Your task to perform on an android device: Open Maps and search for coffee Image 0: 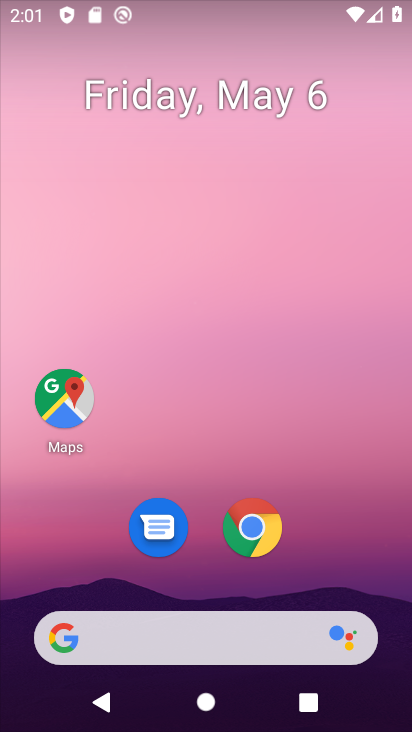
Step 0: click (44, 395)
Your task to perform on an android device: Open Maps and search for coffee Image 1: 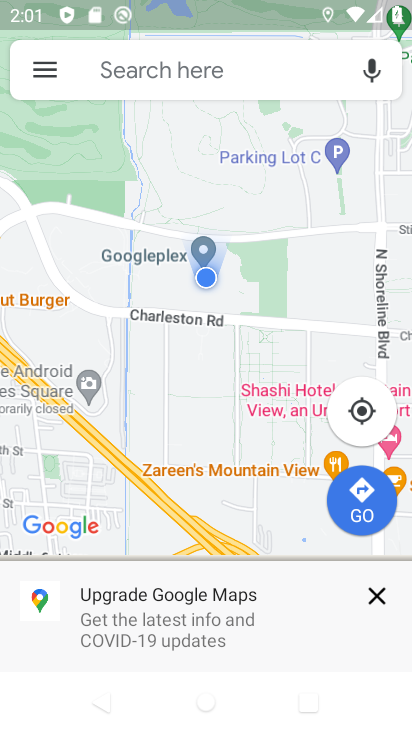
Step 1: click (157, 73)
Your task to perform on an android device: Open Maps and search for coffee Image 2: 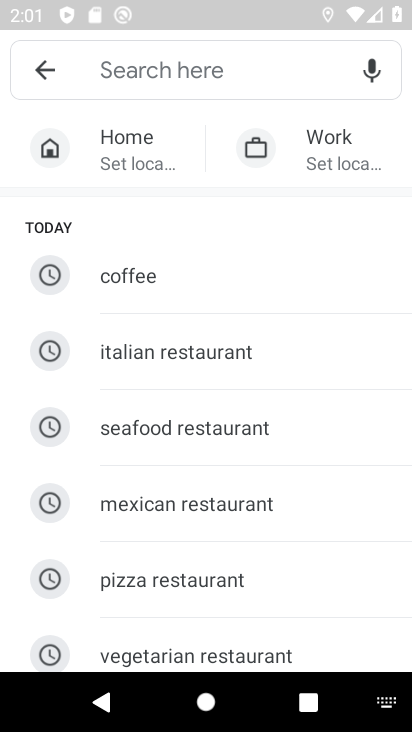
Step 2: type "coffee"
Your task to perform on an android device: Open Maps and search for coffee Image 3: 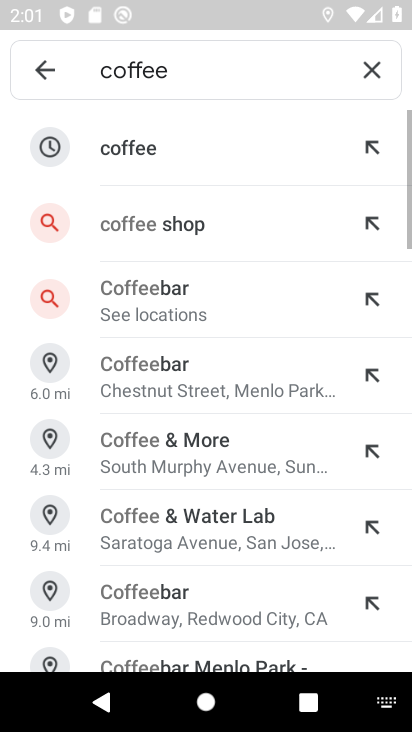
Step 3: click (137, 148)
Your task to perform on an android device: Open Maps and search for coffee Image 4: 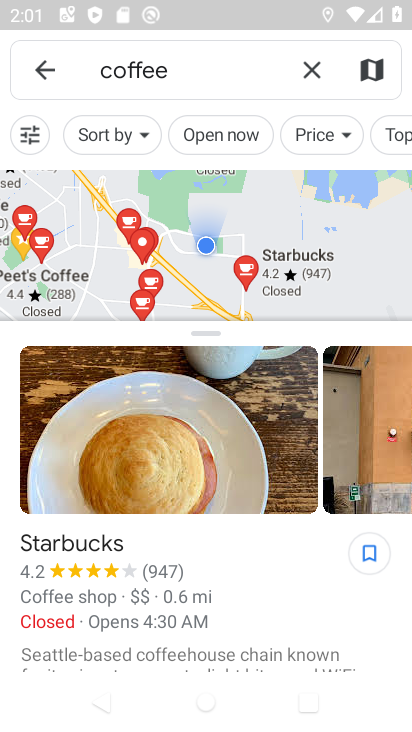
Step 4: task complete